Your task to perform on an android device: Open notification settings Image 0: 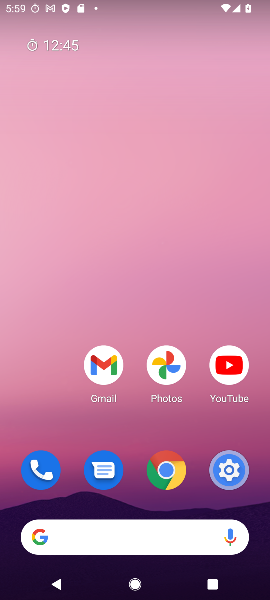
Step 0: press home button
Your task to perform on an android device: Open notification settings Image 1: 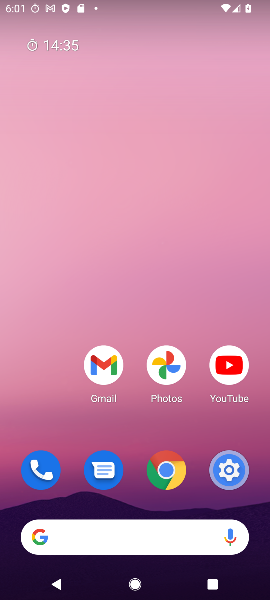
Step 1: click (217, 470)
Your task to perform on an android device: Open notification settings Image 2: 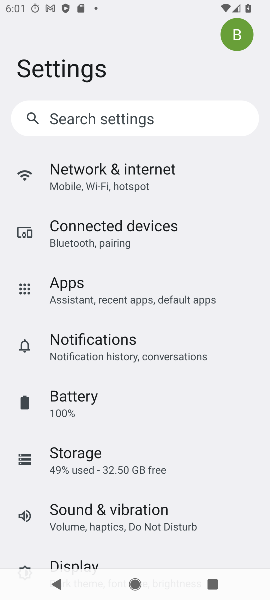
Step 2: click (99, 354)
Your task to perform on an android device: Open notification settings Image 3: 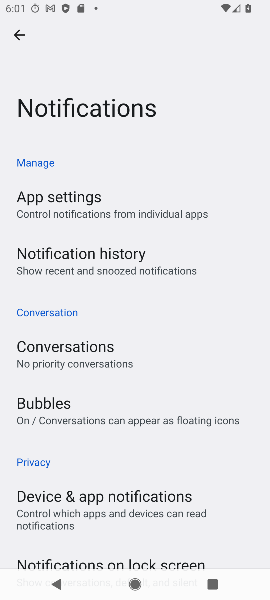
Step 3: task complete